Your task to perform on an android device: Go to Google Image 0: 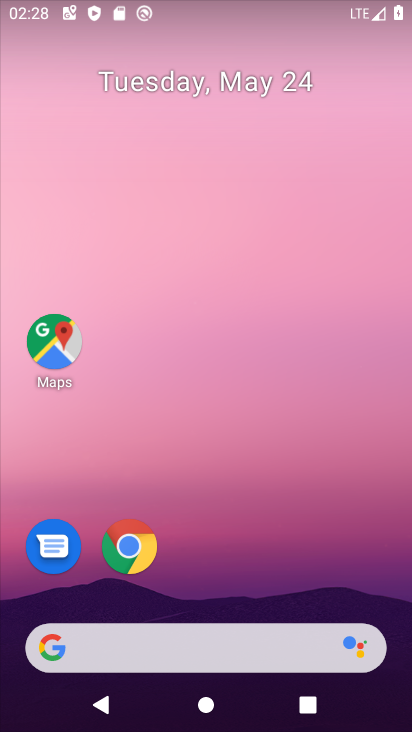
Step 0: drag from (181, 584) to (242, 118)
Your task to perform on an android device: Go to Google Image 1: 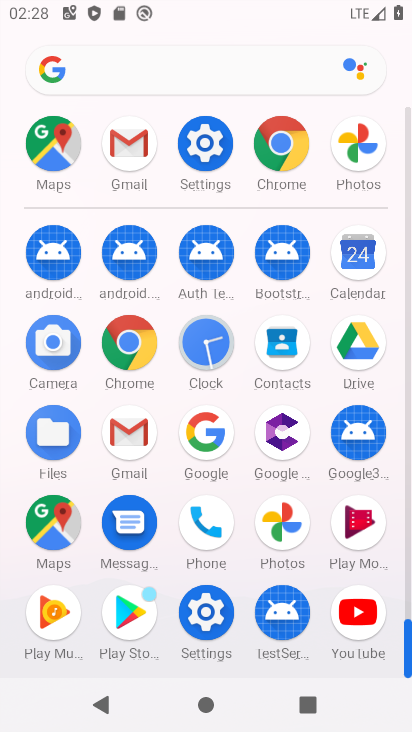
Step 1: click (205, 429)
Your task to perform on an android device: Go to Google Image 2: 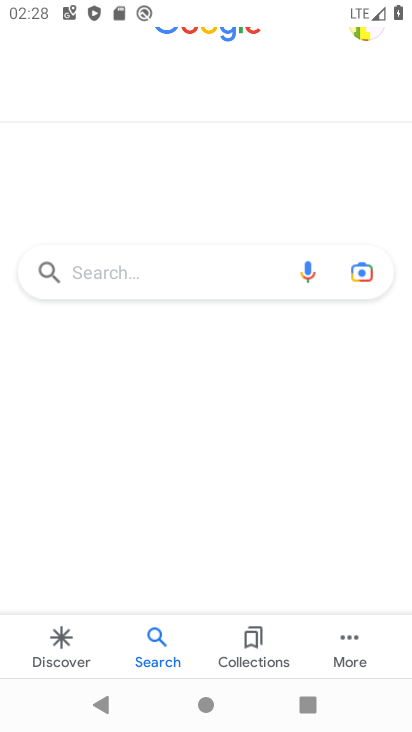
Step 2: task complete